Your task to perform on an android device: Search for Italian restaurants on Maps Image 0: 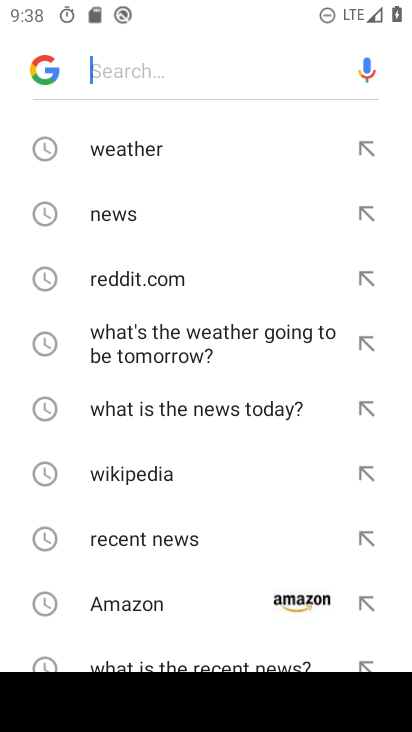
Step 0: press home button
Your task to perform on an android device: Search for Italian restaurants on Maps Image 1: 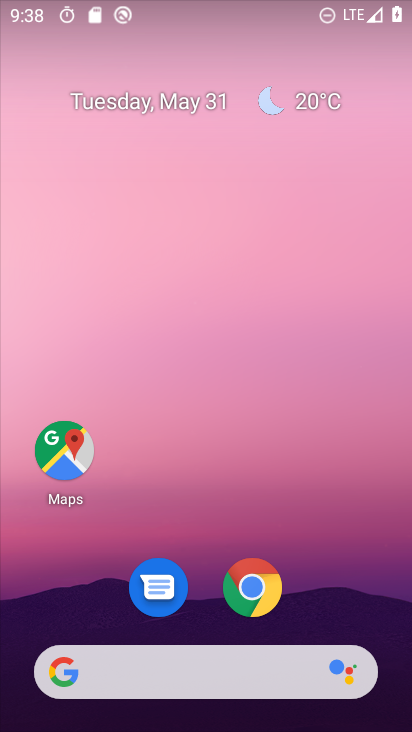
Step 1: click (77, 464)
Your task to perform on an android device: Search for Italian restaurants on Maps Image 2: 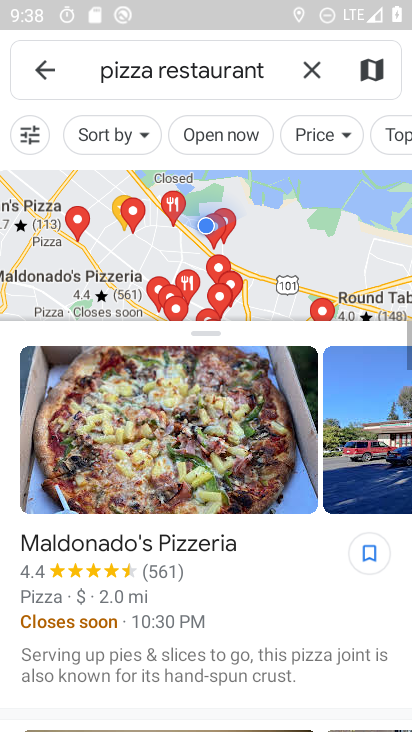
Step 2: click (305, 73)
Your task to perform on an android device: Search for Italian restaurants on Maps Image 3: 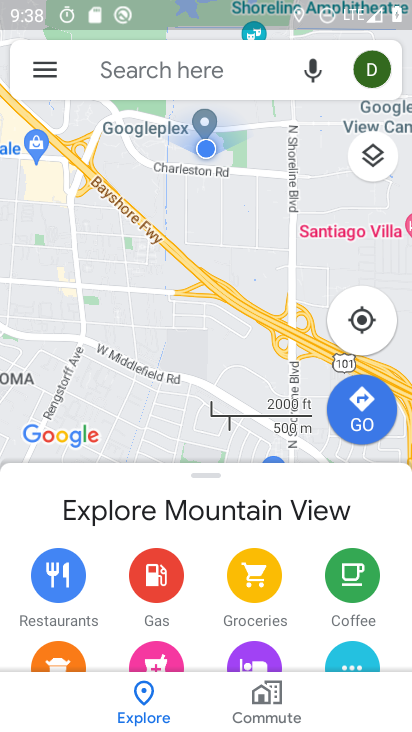
Step 3: click (176, 79)
Your task to perform on an android device: Search for Italian restaurants on Maps Image 4: 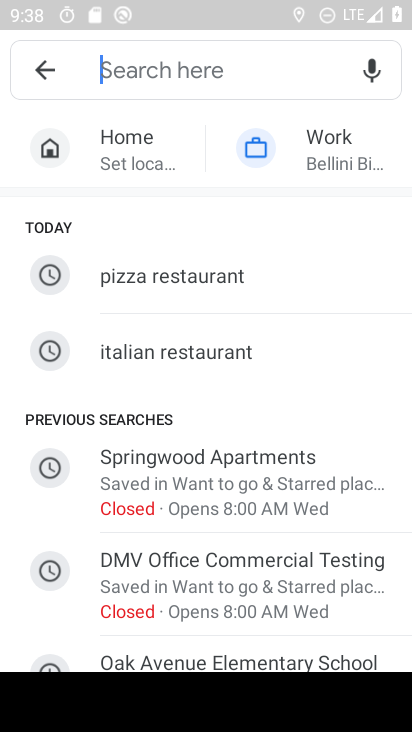
Step 4: click (173, 351)
Your task to perform on an android device: Search for Italian restaurants on Maps Image 5: 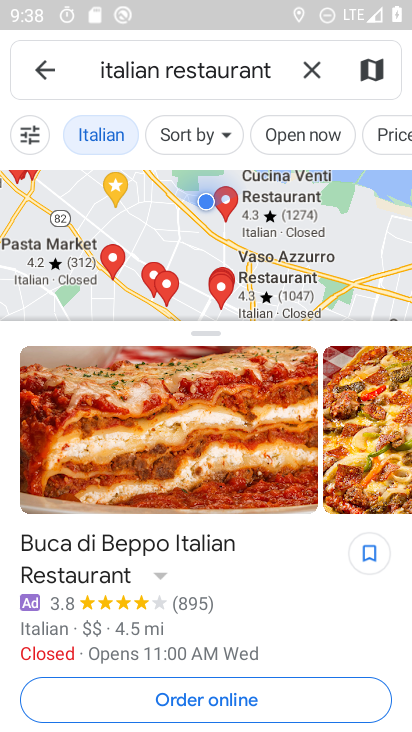
Step 5: task complete